Your task to perform on an android device: turn off notifications in google photos Image 0: 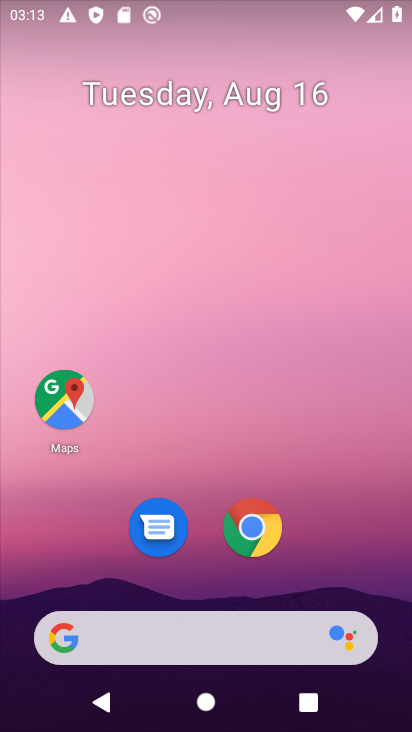
Step 0: press home button
Your task to perform on an android device: turn off notifications in google photos Image 1: 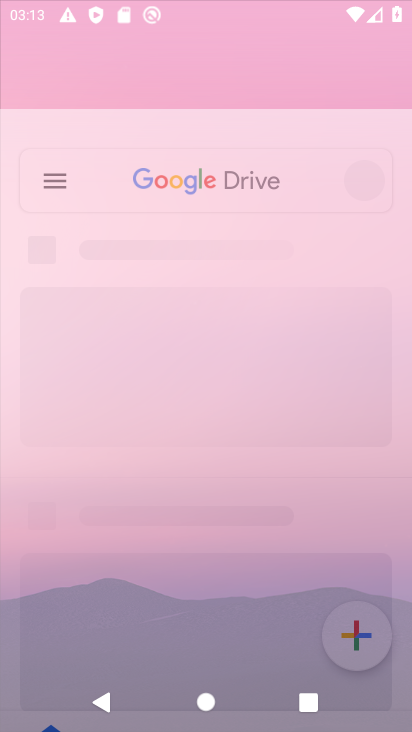
Step 1: drag from (206, 576) to (234, 185)
Your task to perform on an android device: turn off notifications in google photos Image 2: 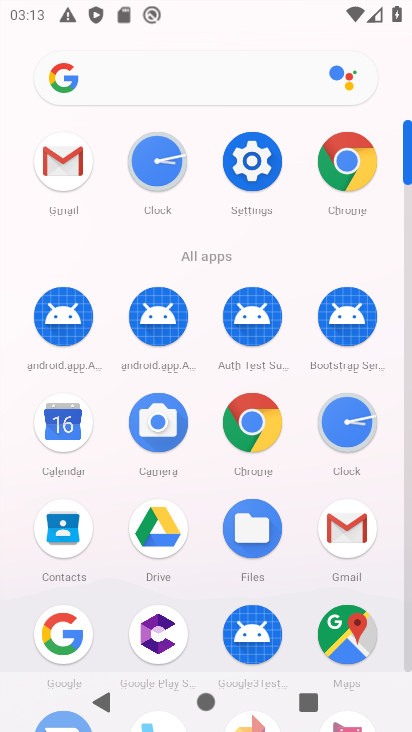
Step 2: press home button
Your task to perform on an android device: turn off notifications in google photos Image 3: 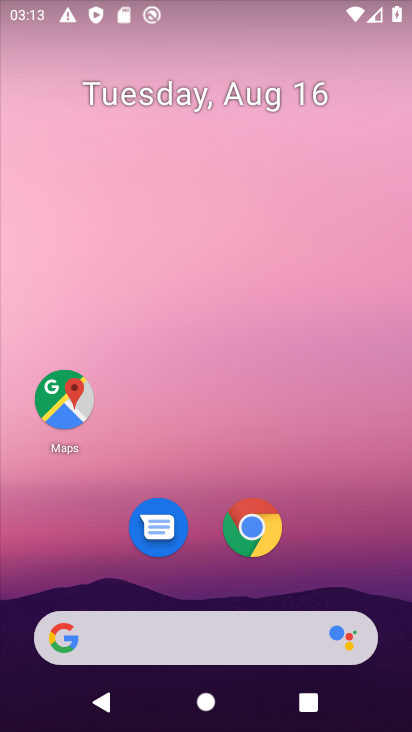
Step 3: drag from (206, 580) to (257, 83)
Your task to perform on an android device: turn off notifications in google photos Image 4: 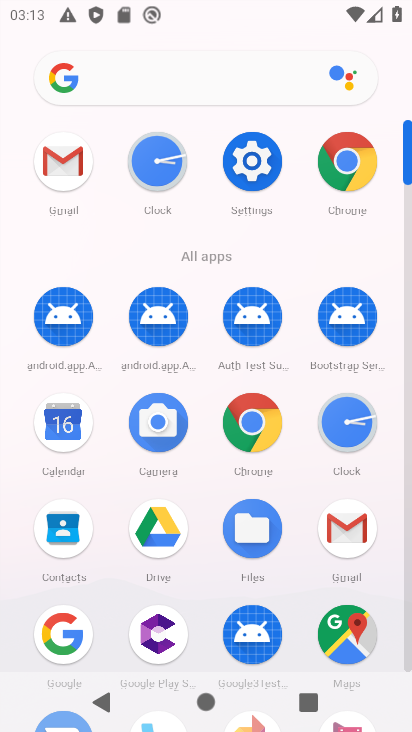
Step 4: drag from (199, 612) to (273, 106)
Your task to perform on an android device: turn off notifications in google photos Image 5: 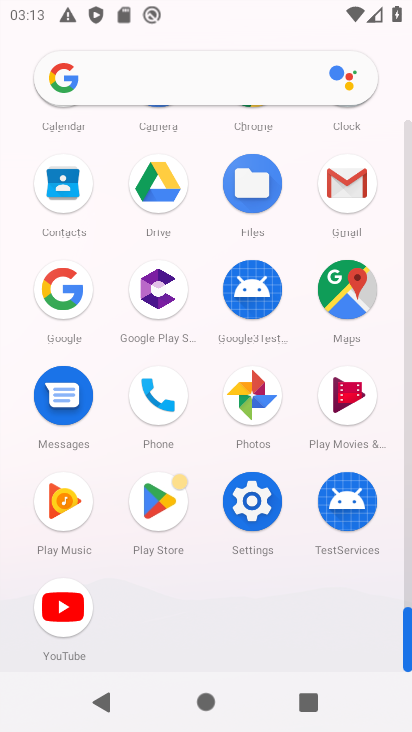
Step 5: click (250, 387)
Your task to perform on an android device: turn off notifications in google photos Image 6: 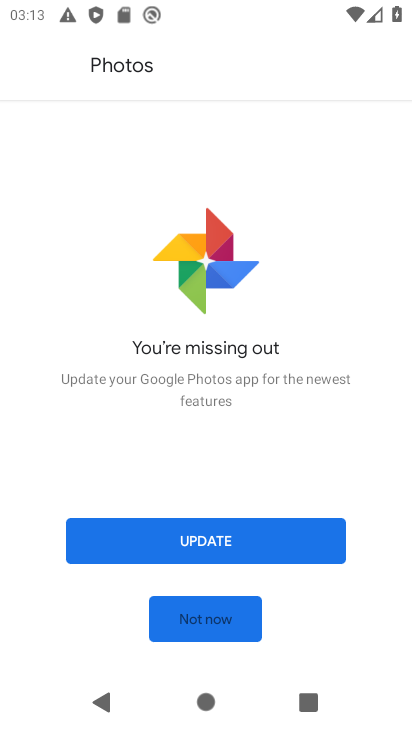
Step 6: click (194, 538)
Your task to perform on an android device: turn off notifications in google photos Image 7: 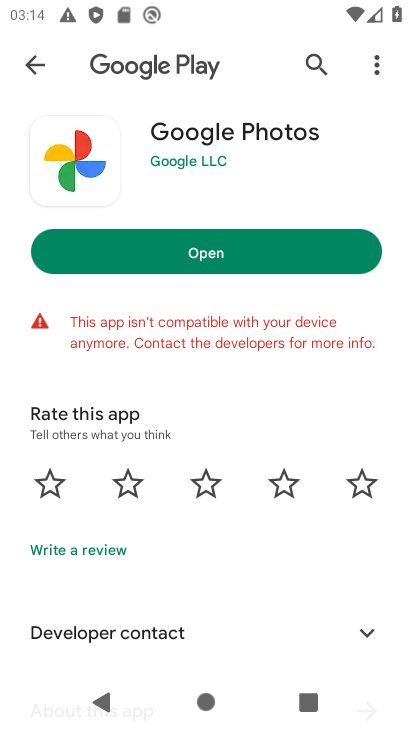
Step 7: click (214, 262)
Your task to perform on an android device: turn off notifications in google photos Image 8: 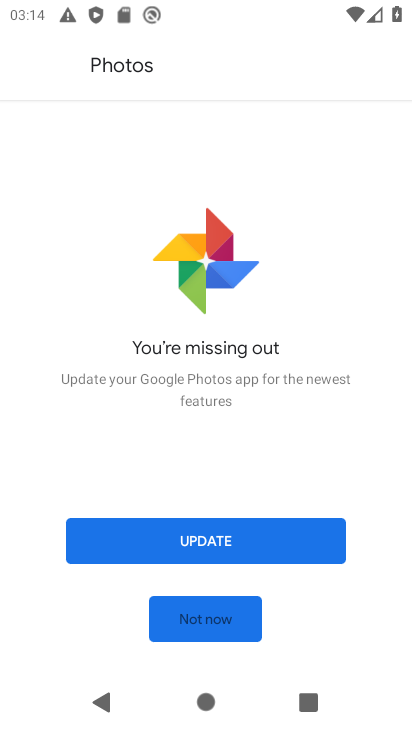
Step 8: click (203, 622)
Your task to perform on an android device: turn off notifications in google photos Image 9: 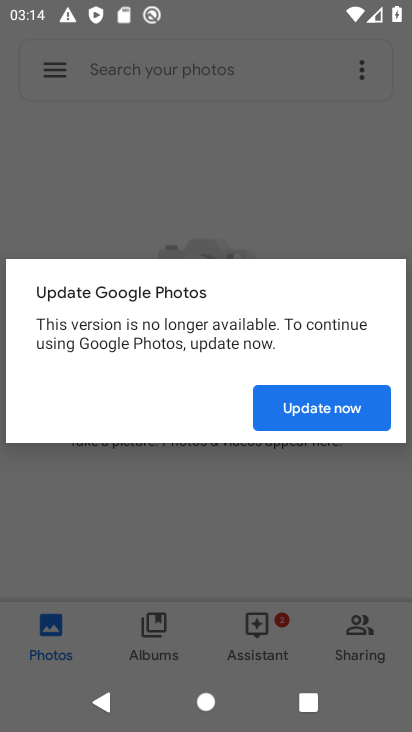
Step 9: click (177, 563)
Your task to perform on an android device: turn off notifications in google photos Image 10: 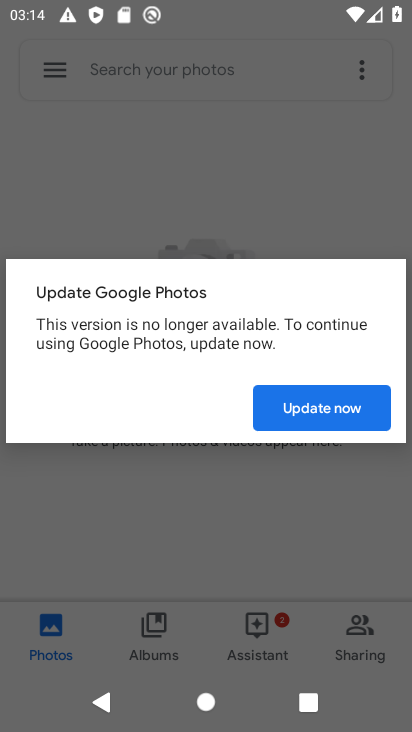
Step 10: click (217, 533)
Your task to perform on an android device: turn off notifications in google photos Image 11: 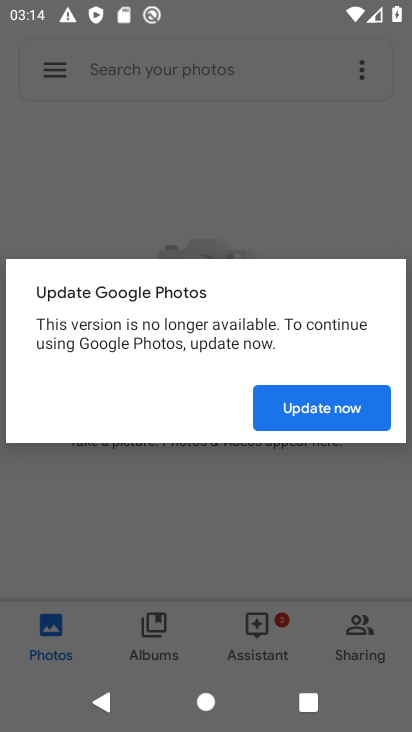
Step 11: press back button
Your task to perform on an android device: turn off notifications in google photos Image 12: 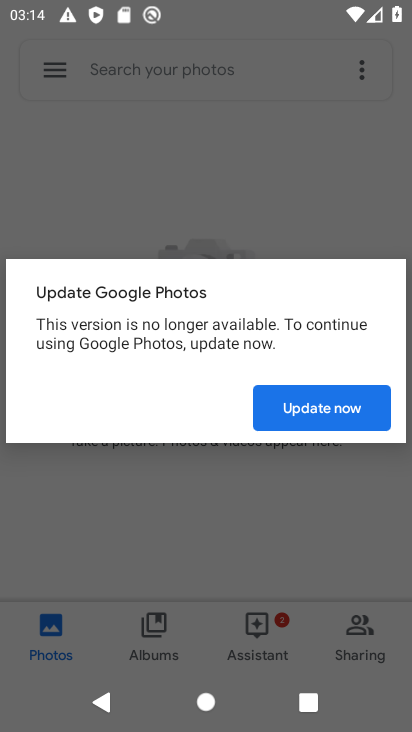
Step 12: click (212, 537)
Your task to perform on an android device: turn off notifications in google photos Image 13: 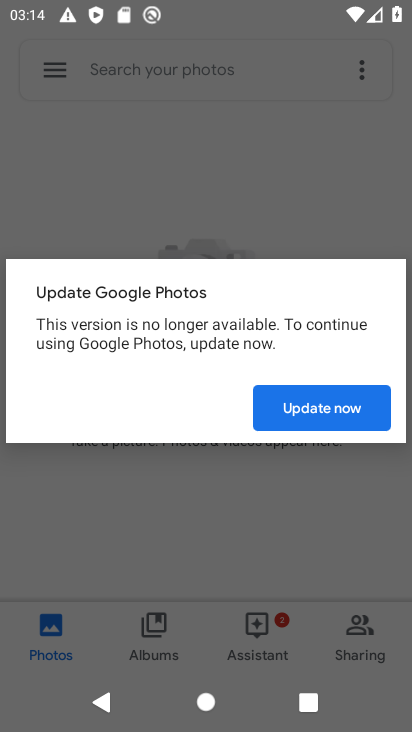
Step 13: task complete